Your task to perform on an android device: Go to location settings Image 0: 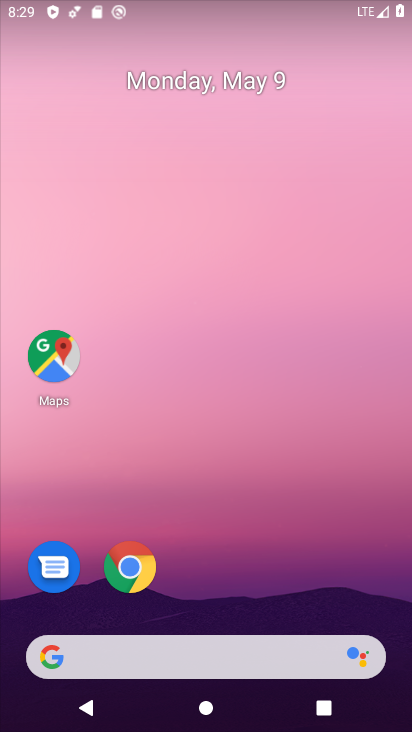
Step 0: drag from (301, 555) to (216, 2)
Your task to perform on an android device: Go to location settings Image 1: 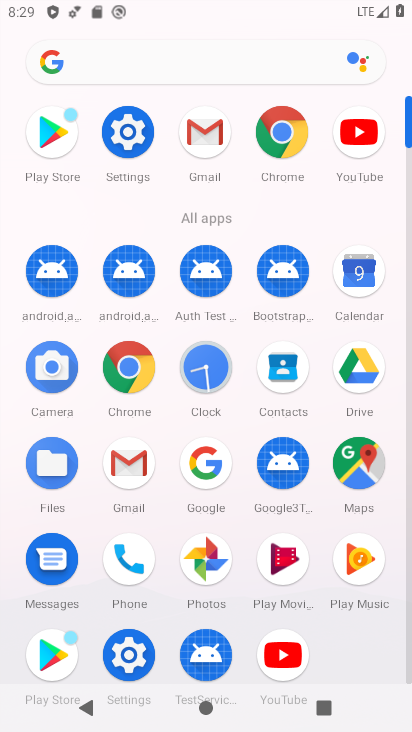
Step 1: click (131, 663)
Your task to perform on an android device: Go to location settings Image 2: 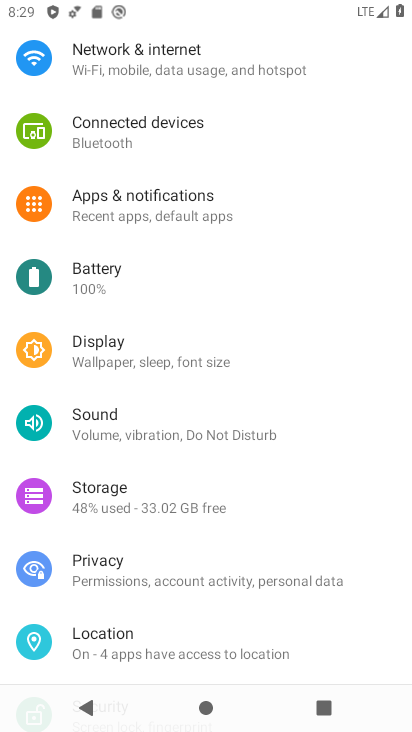
Step 2: click (126, 641)
Your task to perform on an android device: Go to location settings Image 3: 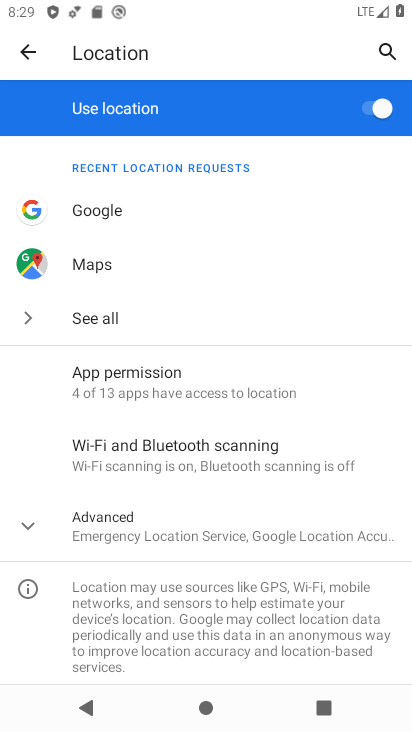
Step 3: task complete